Your task to perform on an android device: check battery use Image 0: 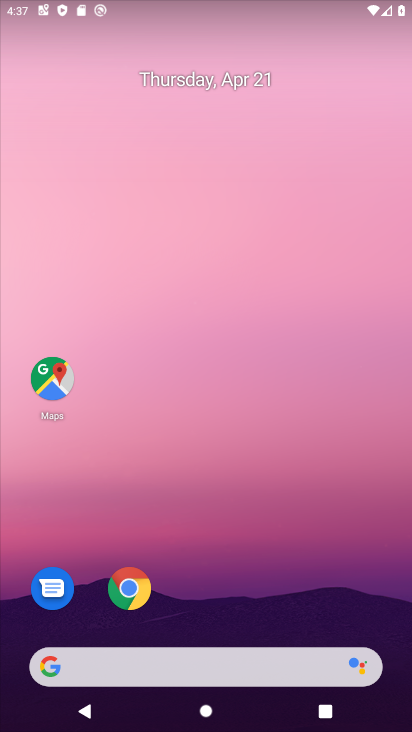
Step 0: drag from (284, 549) to (336, 43)
Your task to perform on an android device: check battery use Image 1: 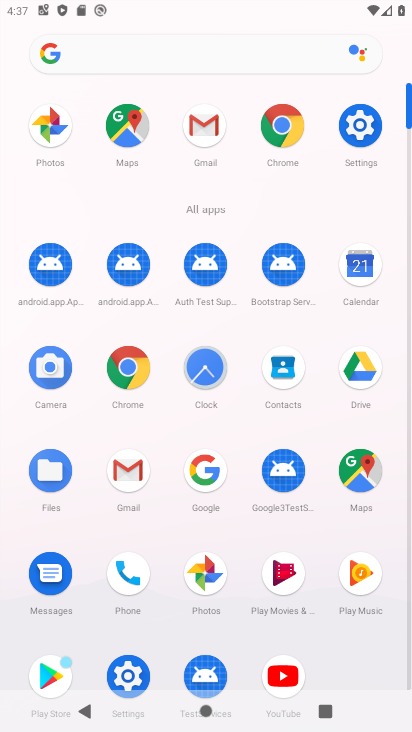
Step 1: click (361, 120)
Your task to perform on an android device: check battery use Image 2: 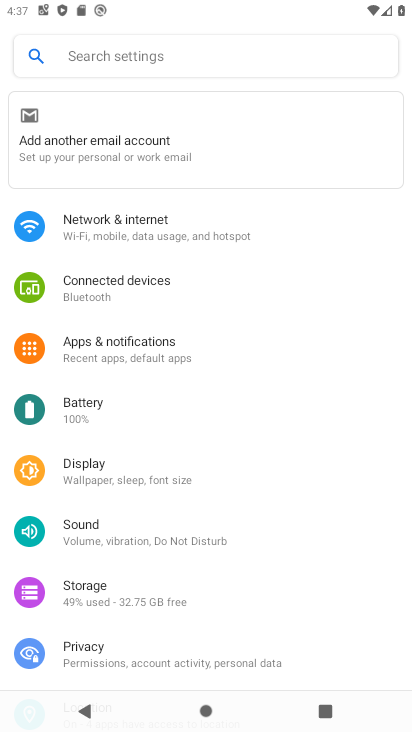
Step 2: click (112, 424)
Your task to perform on an android device: check battery use Image 3: 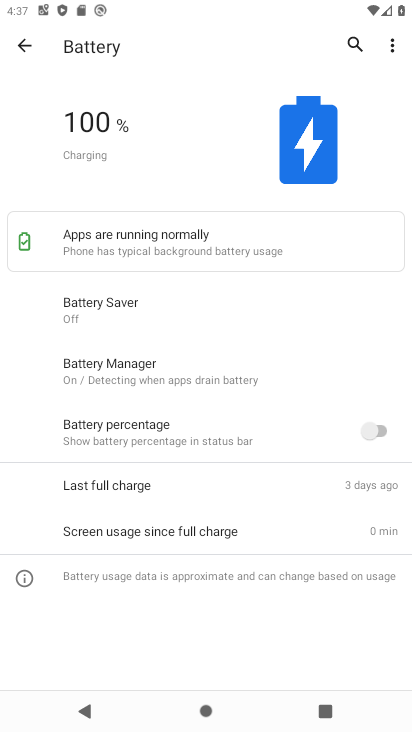
Step 3: click (396, 39)
Your task to perform on an android device: check battery use Image 4: 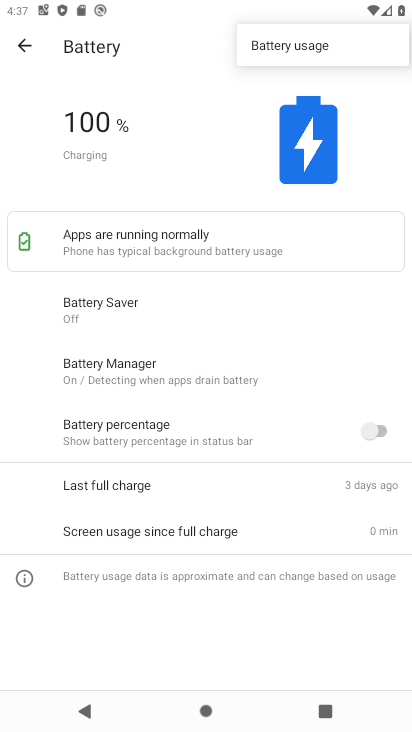
Step 4: click (346, 55)
Your task to perform on an android device: check battery use Image 5: 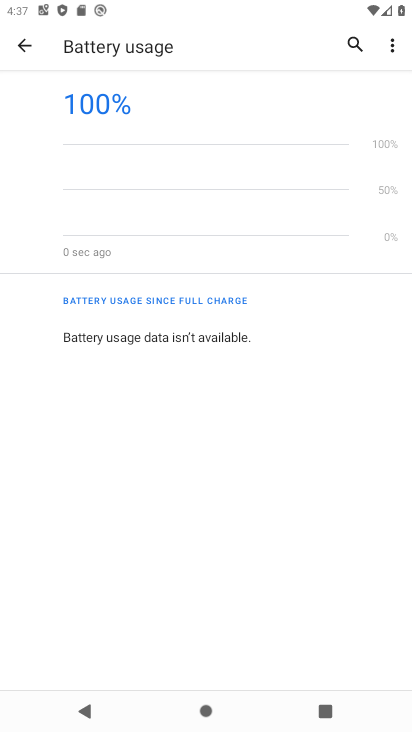
Step 5: task complete